Your task to perform on an android device: Go to Maps Image 0: 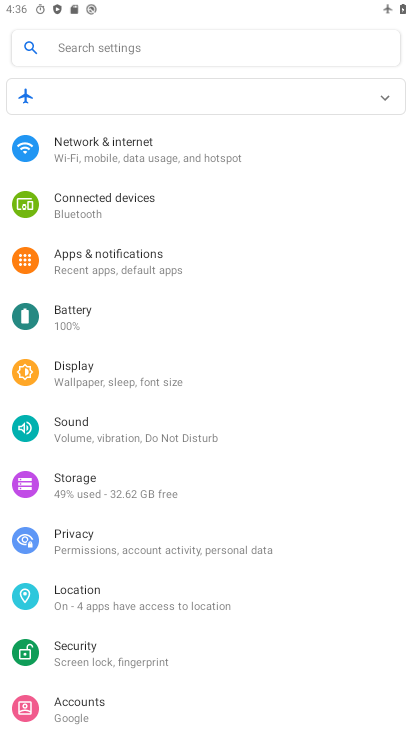
Step 0: press home button
Your task to perform on an android device: Go to Maps Image 1: 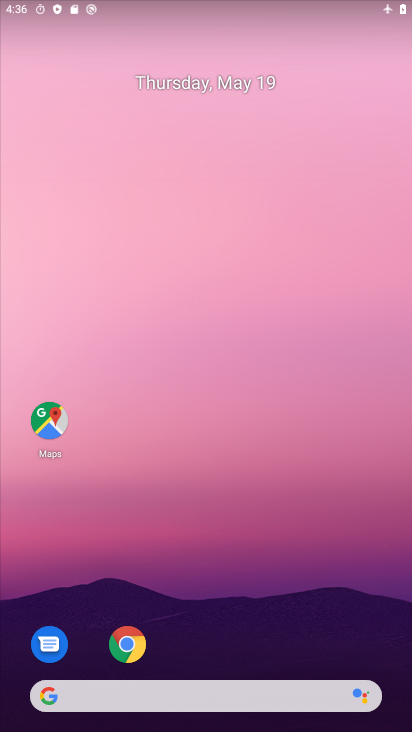
Step 1: click (47, 427)
Your task to perform on an android device: Go to Maps Image 2: 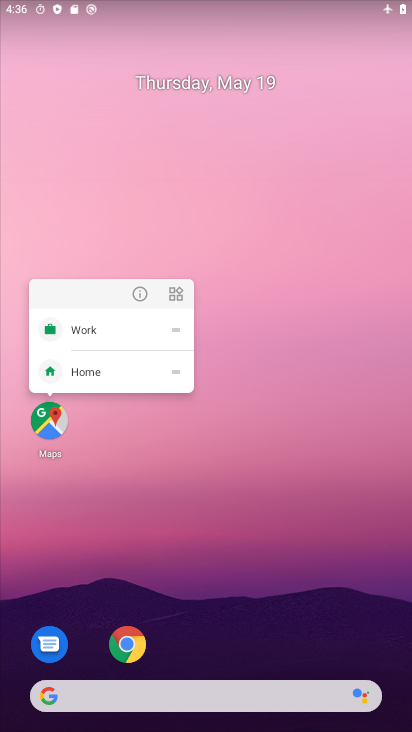
Step 2: click (40, 427)
Your task to perform on an android device: Go to Maps Image 3: 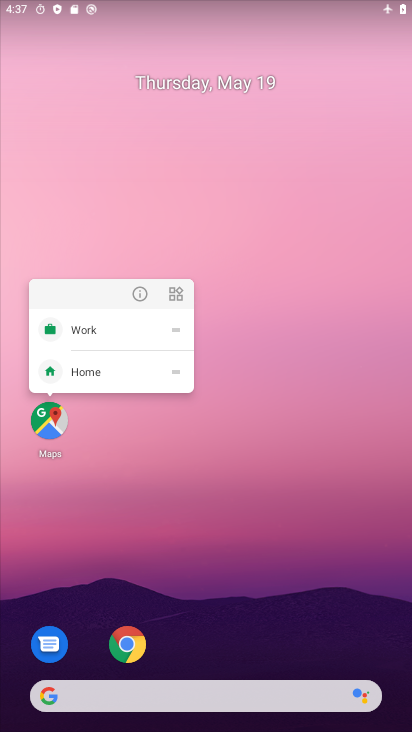
Step 3: click (42, 413)
Your task to perform on an android device: Go to Maps Image 4: 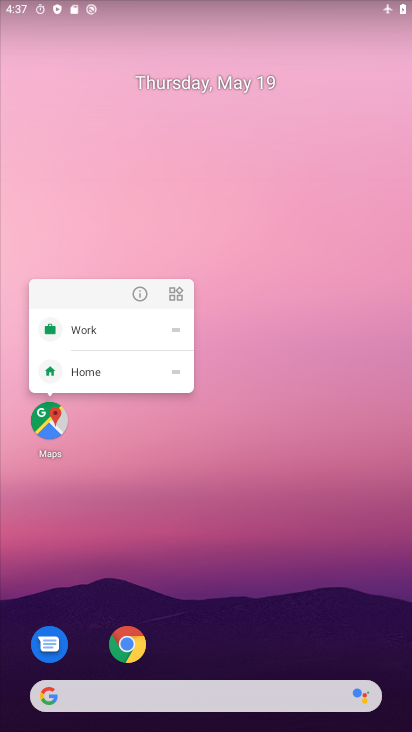
Step 4: click (47, 428)
Your task to perform on an android device: Go to Maps Image 5: 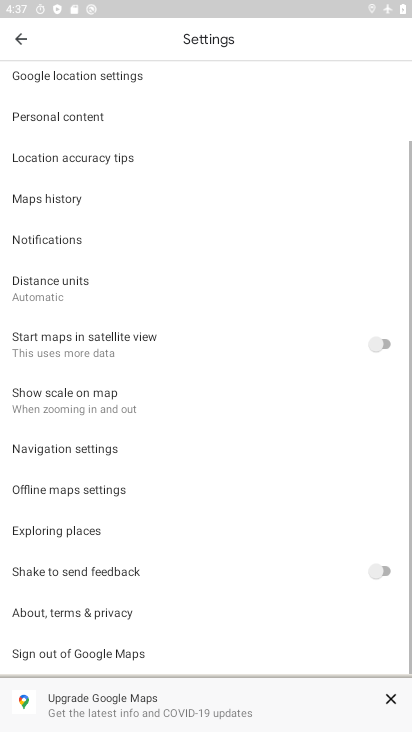
Step 5: click (23, 40)
Your task to perform on an android device: Go to Maps Image 6: 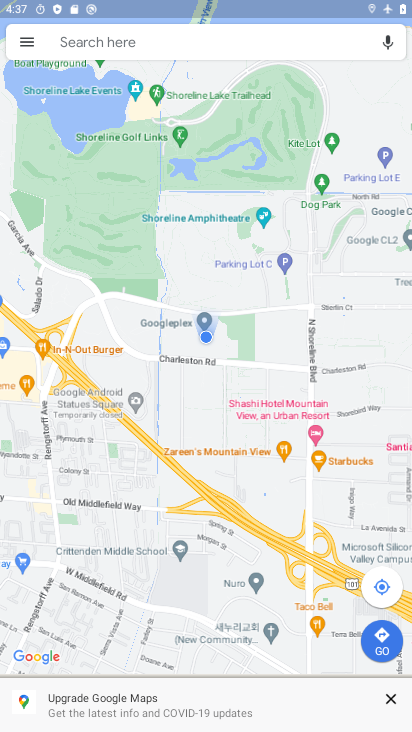
Step 6: task complete